Your task to perform on an android device: Open Chrome and go to settings Image 0: 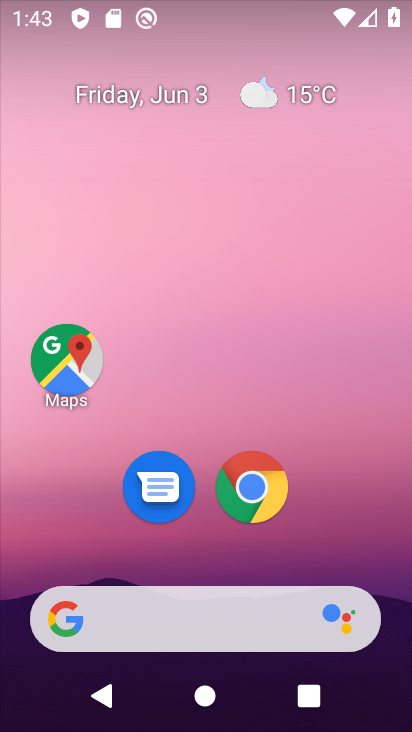
Step 0: click (258, 483)
Your task to perform on an android device: Open Chrome and go to settings Image 1: 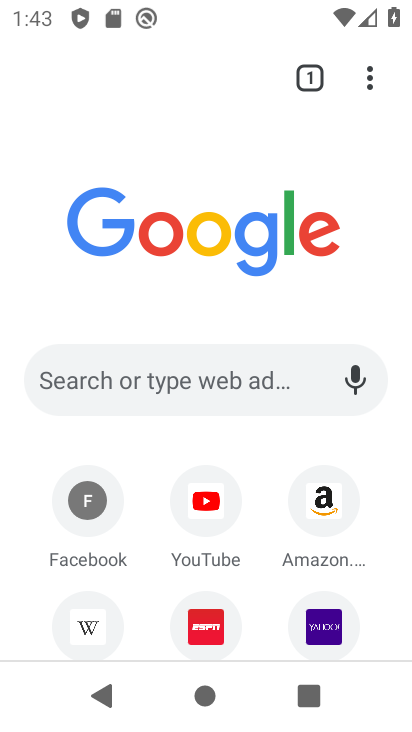
Step 1: click (366, 78)
Your task to perform on an android device: Open Chrome and go to settings Image 2: 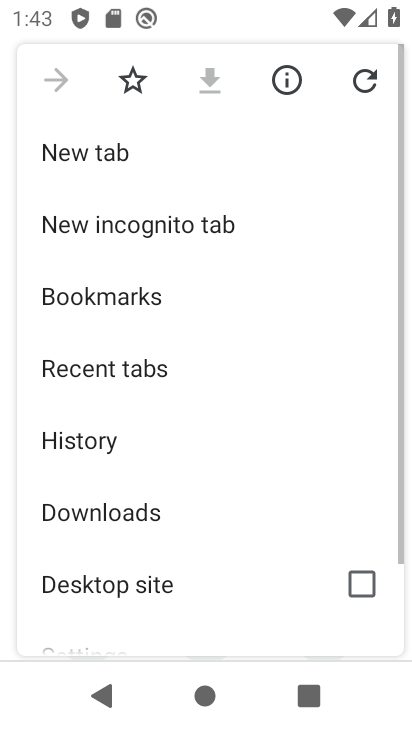
Step 2: drag from (206, 545) to (205, 86)
Your task to perform on an android device: Open Chrome and go to settings Image 3: 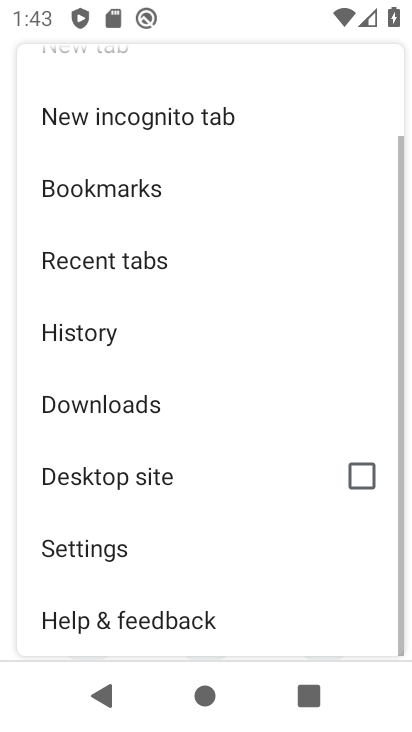
Step 3: click (153, 554)
Your task to perform on an android device: Open Chrome and go to settings Image 4: 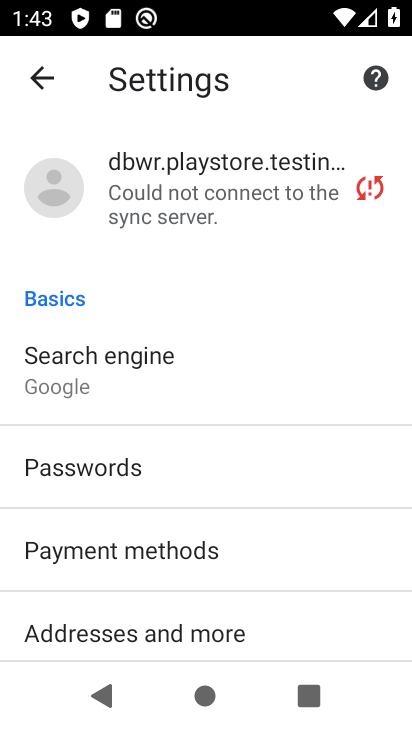
Step 4: task complete